Your task to perform on an android device: What's the weather going to be this weekend? Image 0: 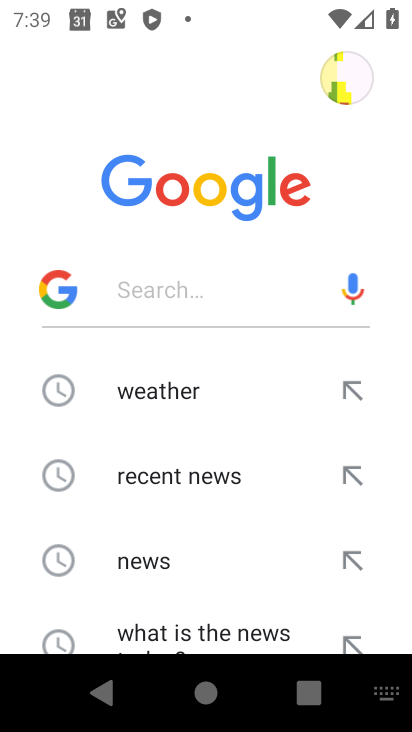
Step 0: press home button
Your task to perform on an android device: What's the weather going to be this weekend? Image 1: 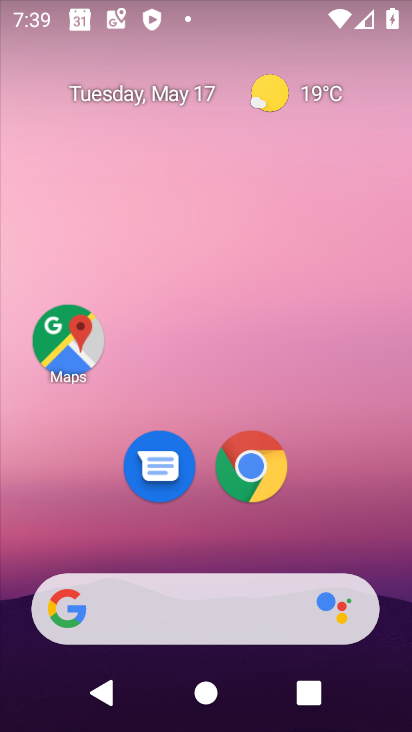
Step 1: click (317, 87)
Your task to perform on an android device: What's the weather going to be this weekend? Image 2: 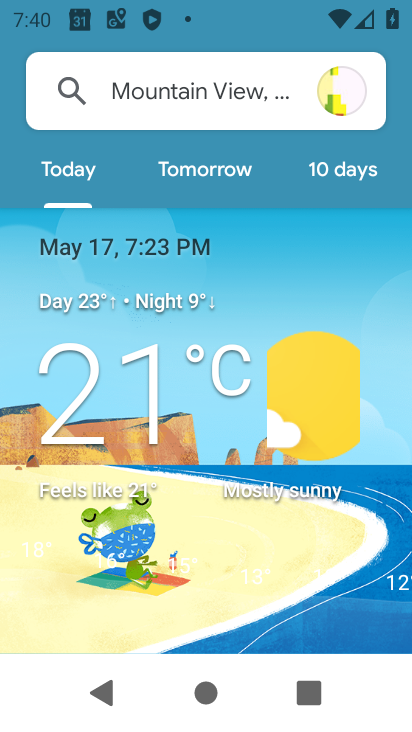
Step 2: click (338, 175)
Your task to perform on an android device: What's the weather going to be this weekend? Image 3: 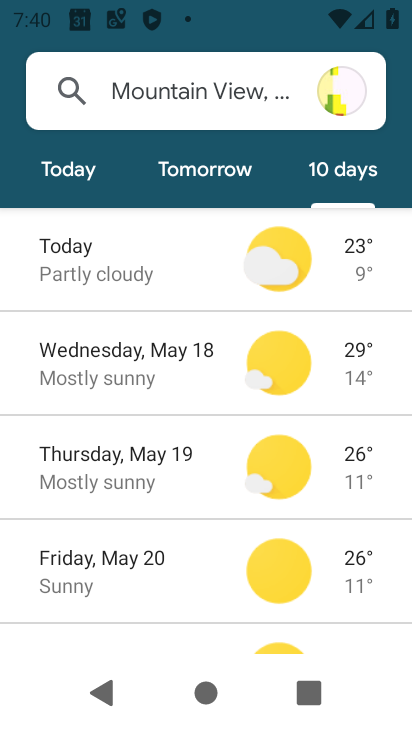
Step 3: drag from (200, 578) to (283, 127)
Your task to perform on an android device: What's the weather going to be this weekend? Image 4: 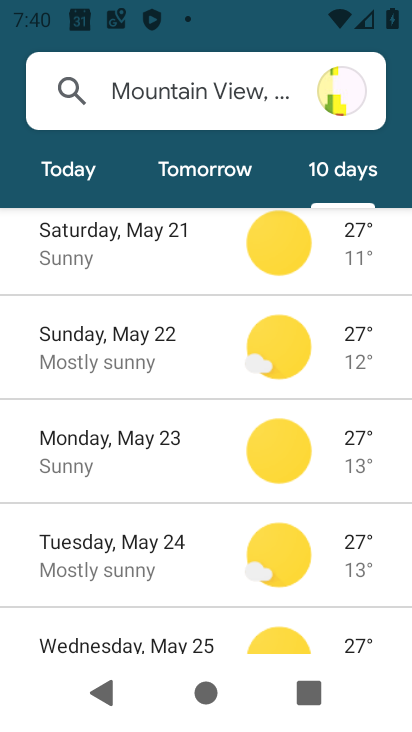
Step 4: click (162, 240)
Your task to perform on an android device: What's the weather going to be this weekend? Image 5: 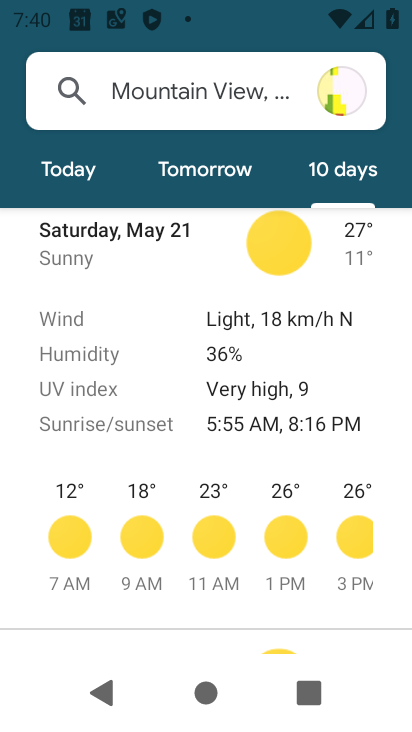
Step 5: task complete